Your task to perform on an android device: Open the Play Movies app and select the watchlist tab. Image 0: 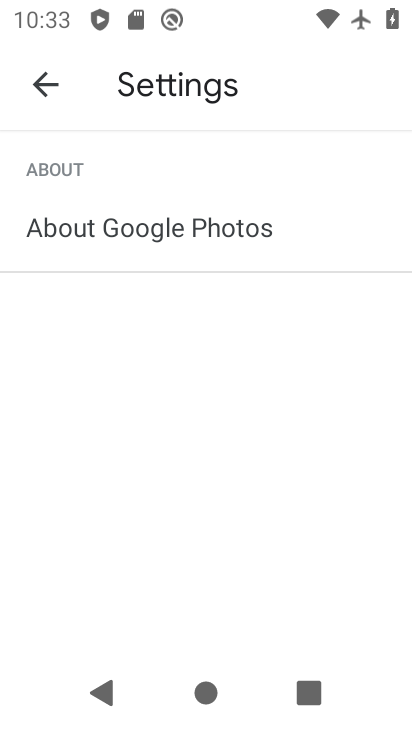
Step 0: press home button
Your task to perform on an android device: Open the Play Movies app and select the watchlist tab. Image 1: 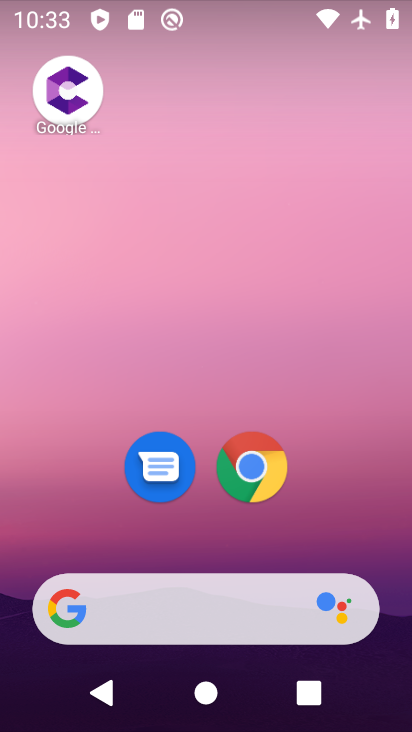
Step 1: drag from (299, 524) to (348, 34)
Your task to perform on an android device: Open the Play Movies app and select the watchlist tab. Image 2: 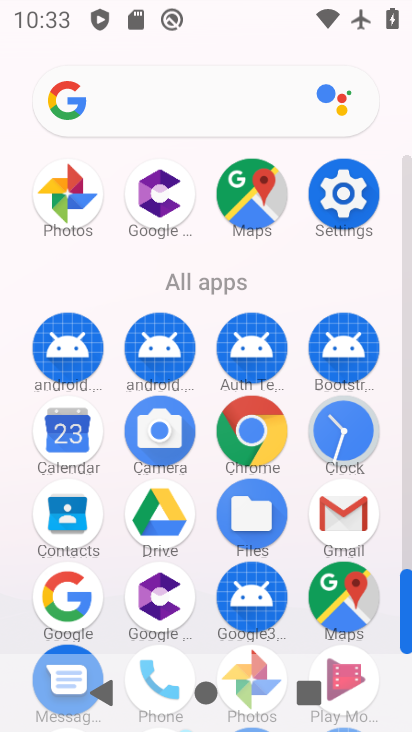
Step 2: drag from (303, 615) to (300, 265)
Your task to perform on an android device: Open the Play Movies app and select the watchlist tab. Image 3: 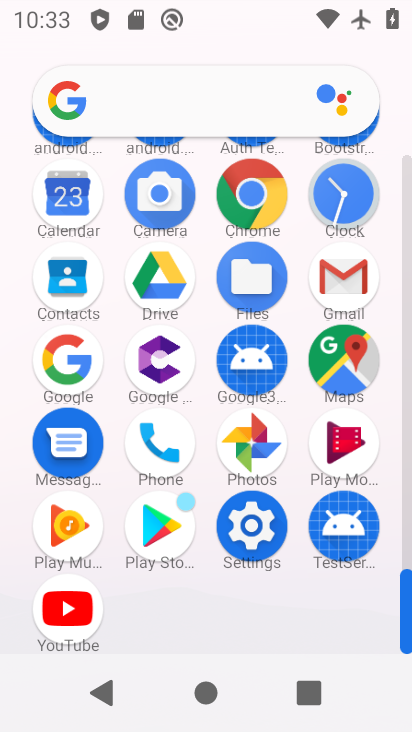
Step 3: click (340, 436)
Your task to perform on an android device: Open the Play Movies app and select the watchlist tab. Image 4: 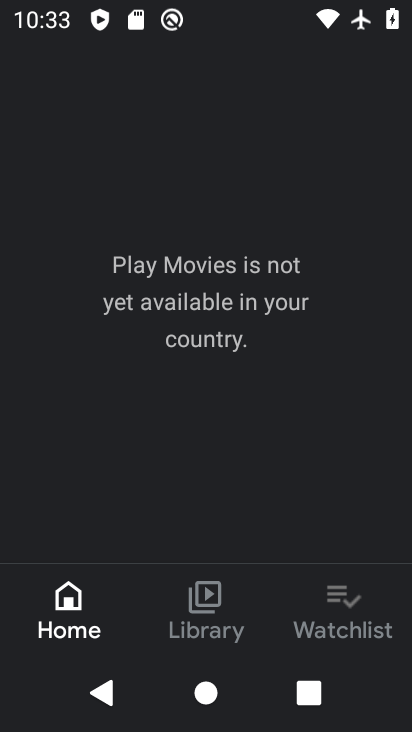
Step 4: click (327, 608)
Your task to perform on an android device: Open the Play Movies app and select the watchlist tab. Image 5: 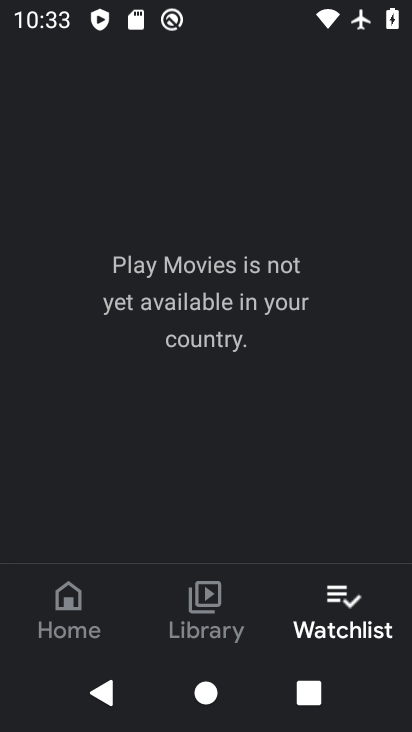
Step 5: task complete